Your task to perform on an android device: open app "The Home Depot" (install if not already installed) Image 0: 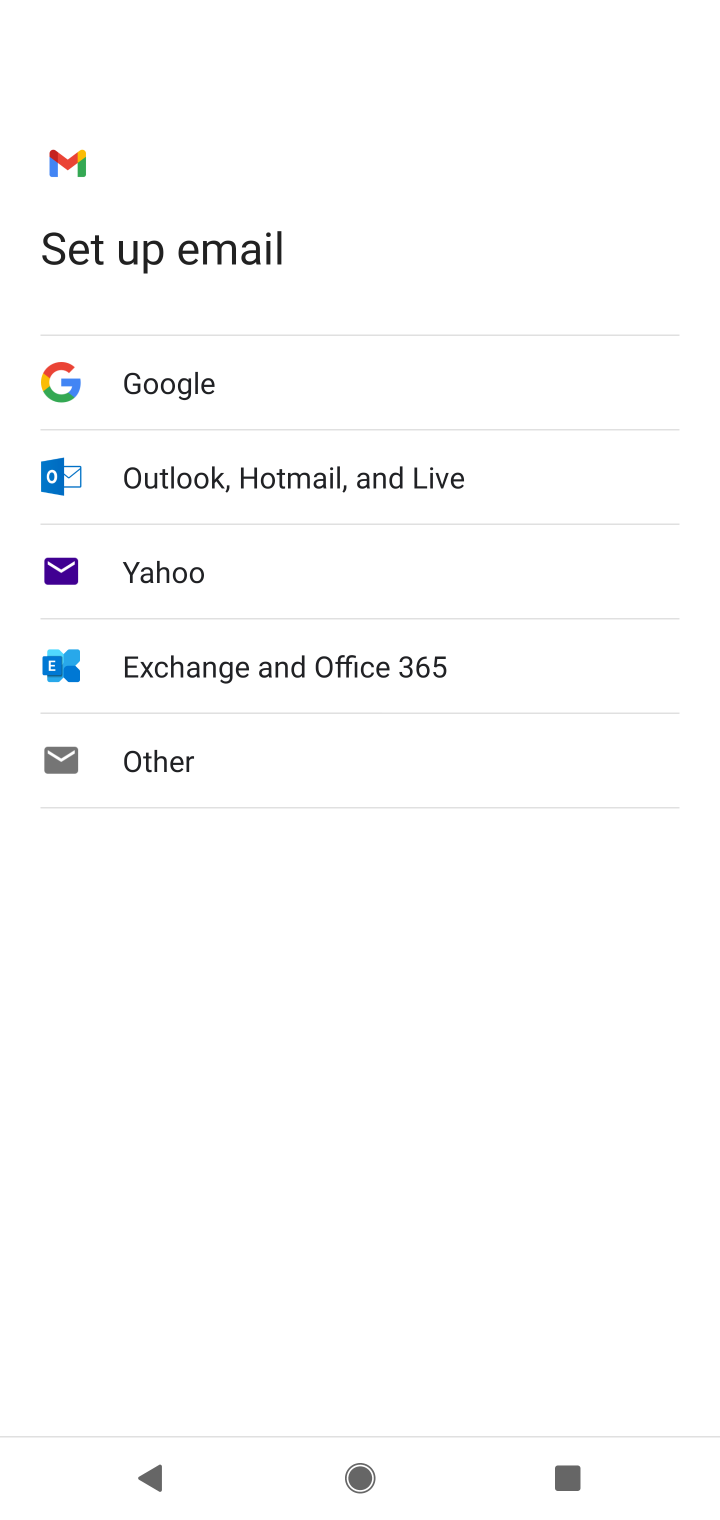
Step 0: press home button
Your task to perform on an android device: open app "The Home Depot" (install if not already installed) Image 1: 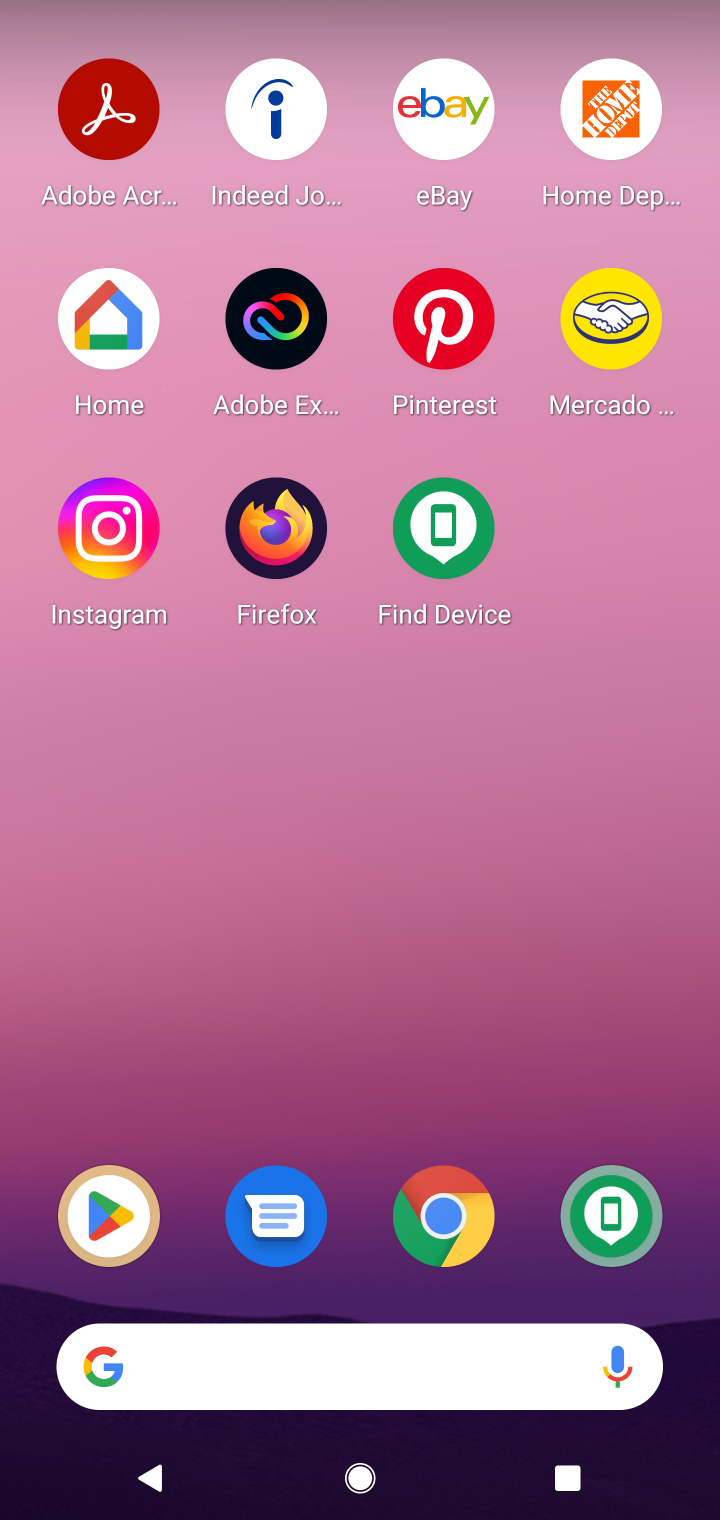
Step 1: click (122, 1256)
Your task to perform on an android device: open app "The Home Depot" (install if not already installed) Image 2: 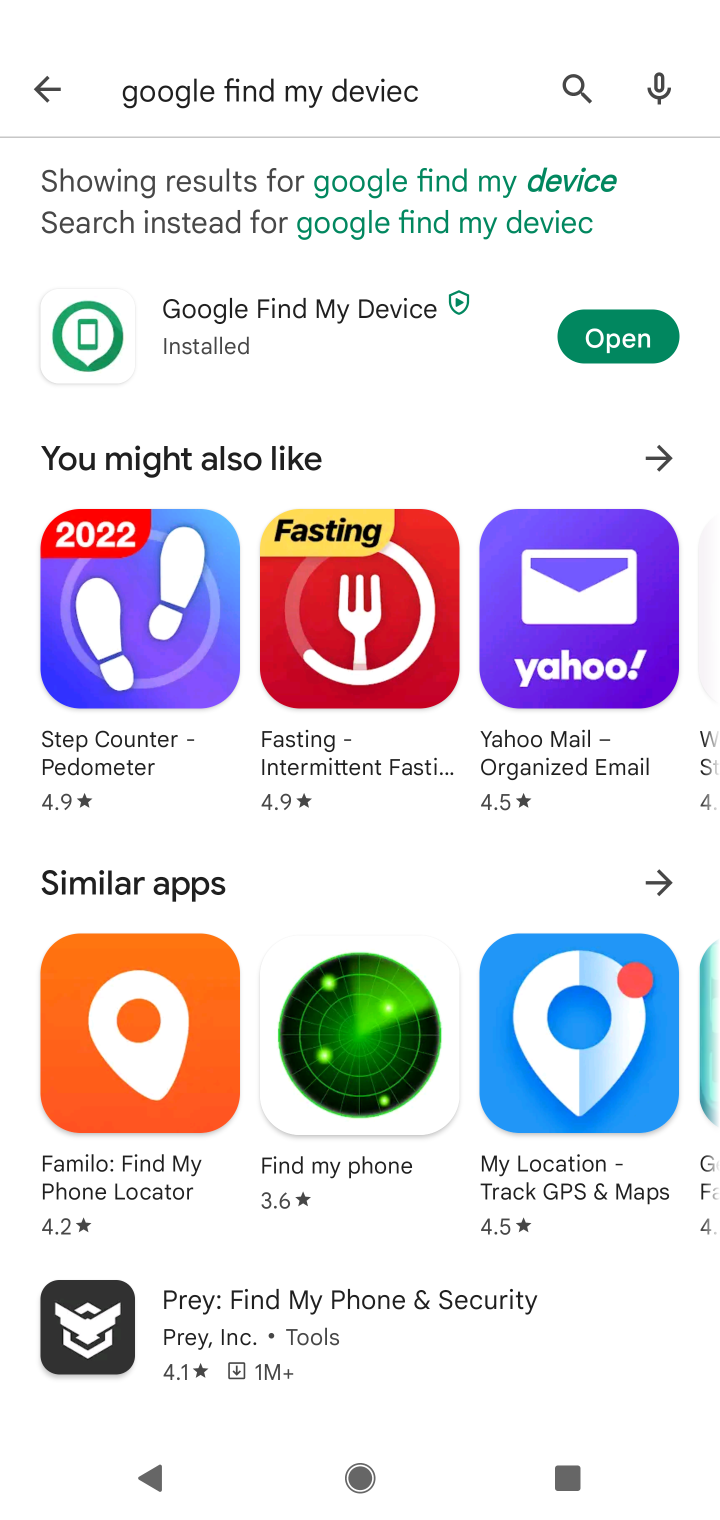
Step 2: click (563, 88)
Your task to perform on an android device: open app "The Home Depot" (install if not already installed) Image 3: 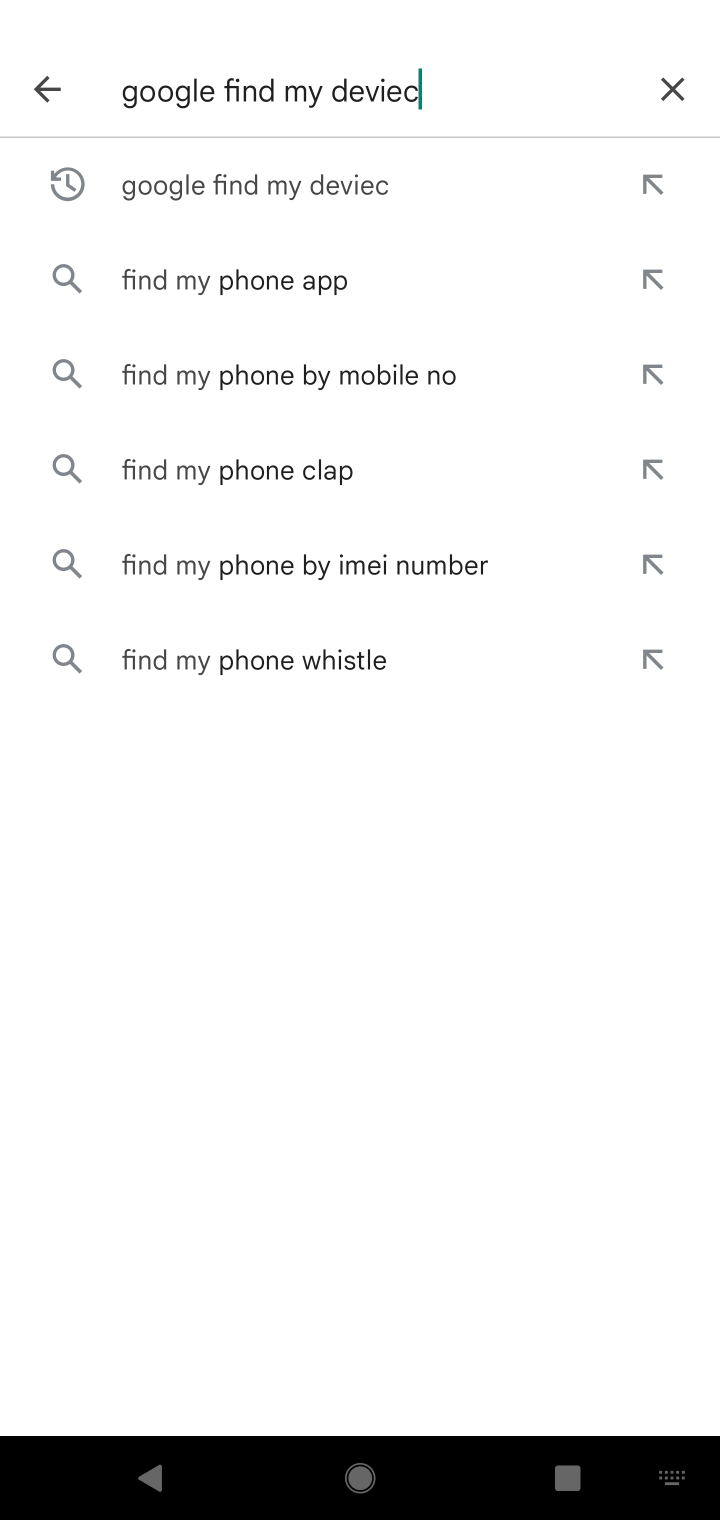
Step 3: click (649, 76)
Your task to perform on an android device: open app "The Home Depot" (install if not already installed) Image 4: 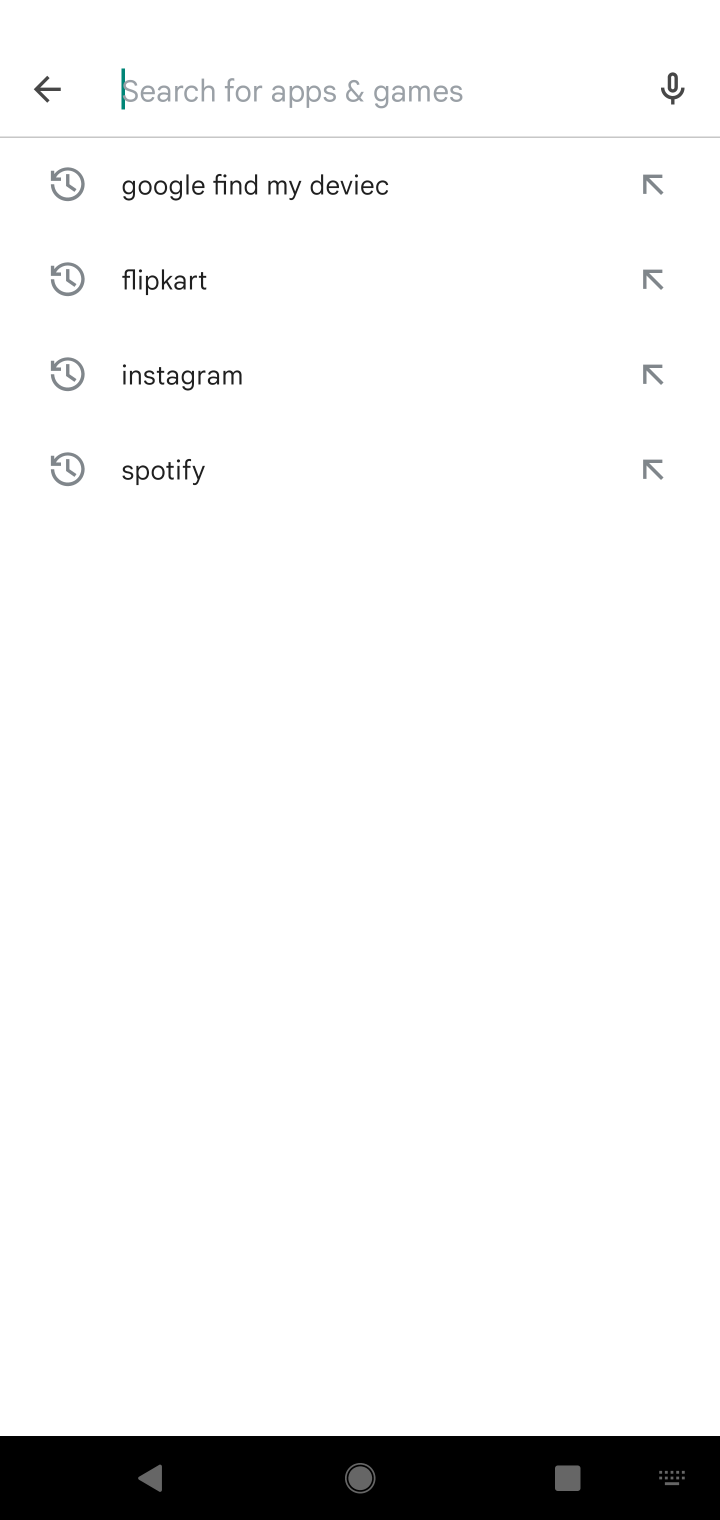
Step 4: type "the home depot"
Your task to perform on an android device: open app "The Home Depot" (install if not already installed) Image 5: 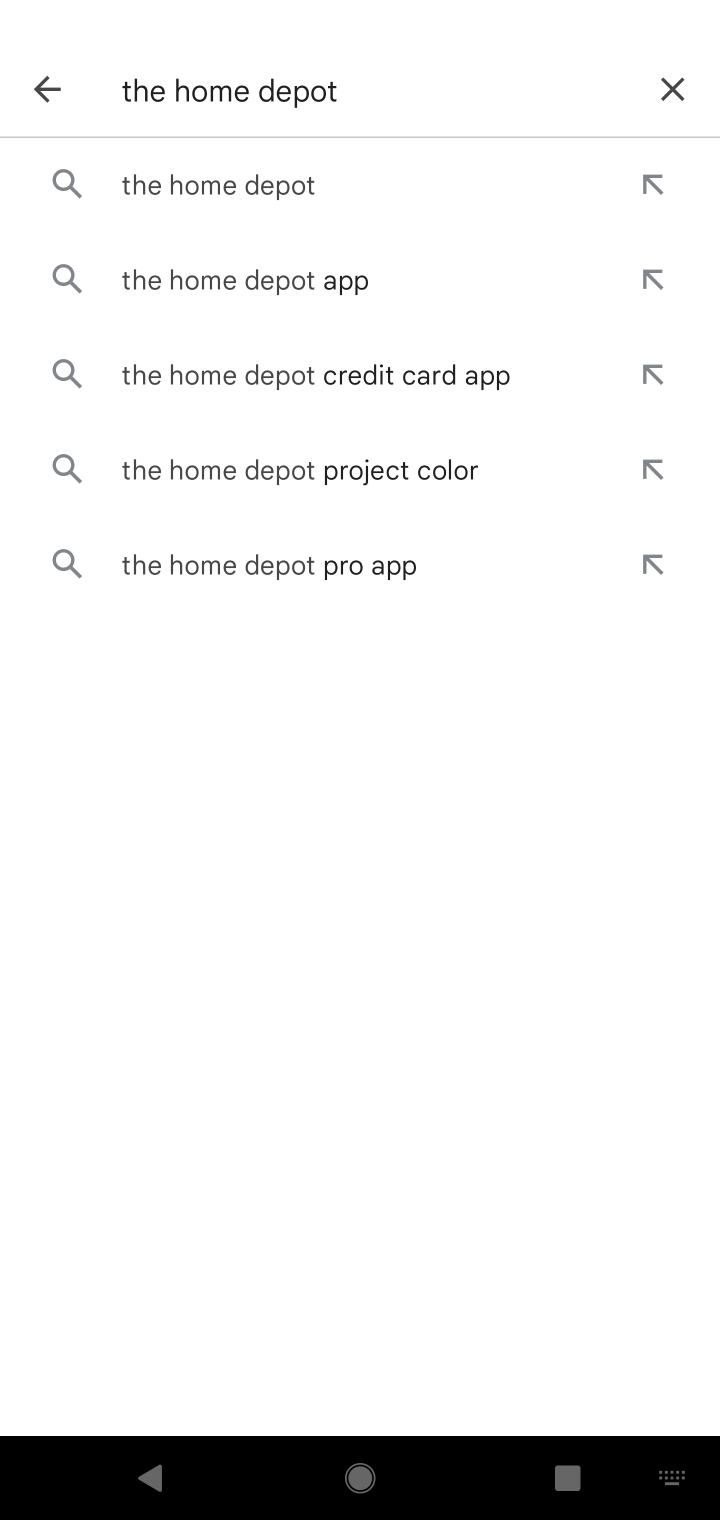
Step 5: click (273, 164)
Your task to perform on an android device: open app "The Home Depot" (install if not already installed) Image 6: 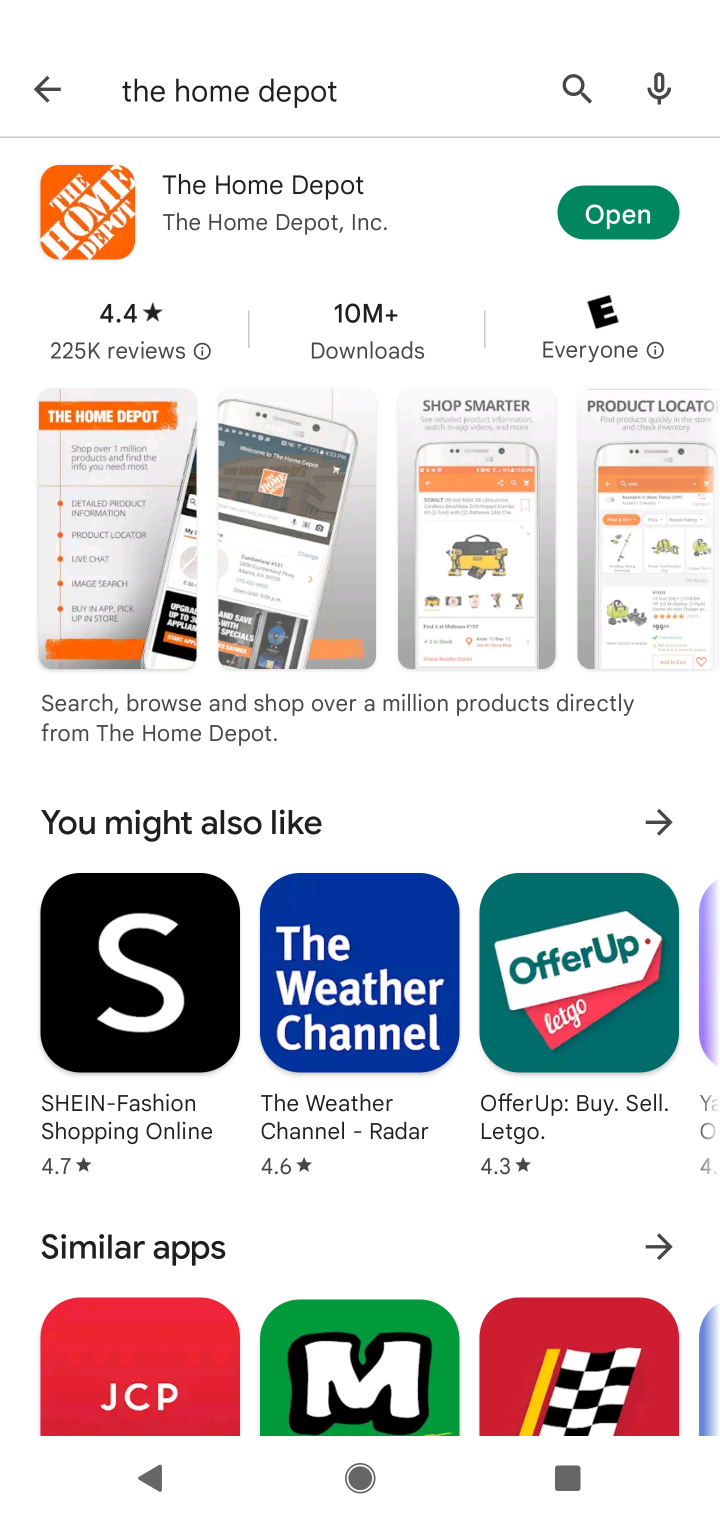
Step 6: task complete